Your task to perform on an android device: Open display settings Image 0: 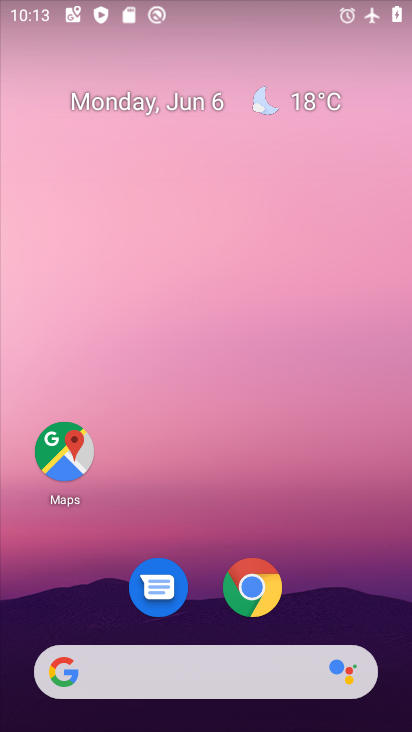
Step 0: drag from (340, 564) to (328, 111)
Your task to perform on an android device: Open display settings Image 1: 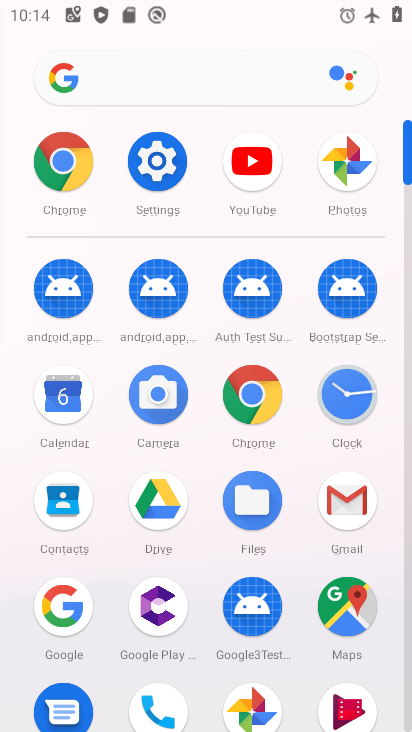
Step 1: click (161, 153)
Your task to perform on an android device: Open display settings Image 2: 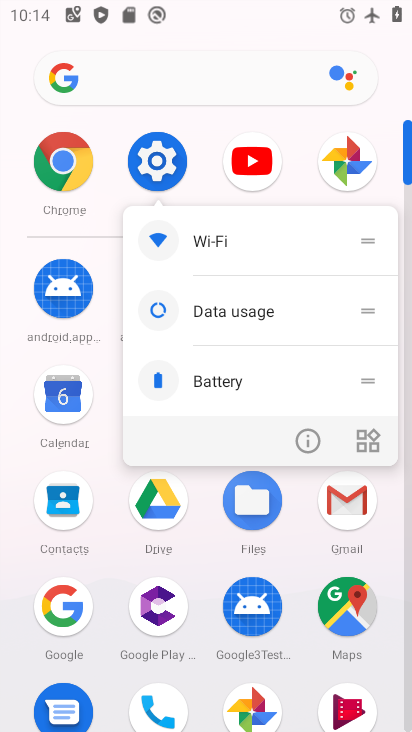
Step 2: click (159, 159)
Your task to perform on an android device: Open display settings Image 3: 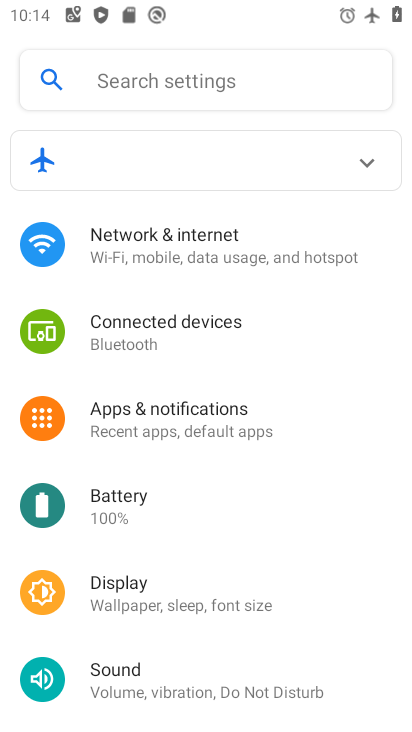
Step 3: click (150, 584)
Your task to perform on an android device: Open display settings Image 4: 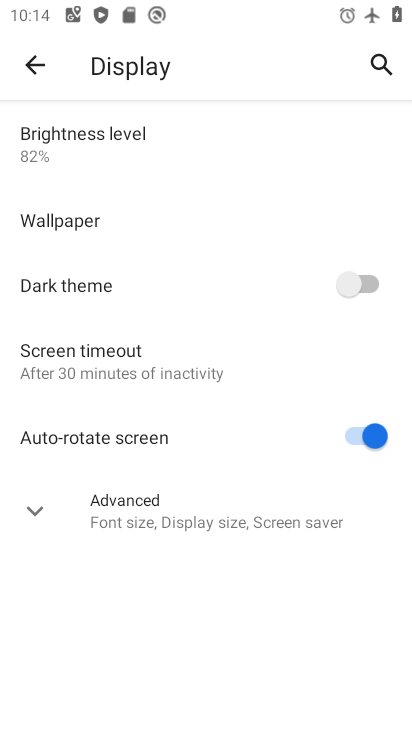
Step 4: task complete